Your task to perform on an android device: Open Android settings Image 0: 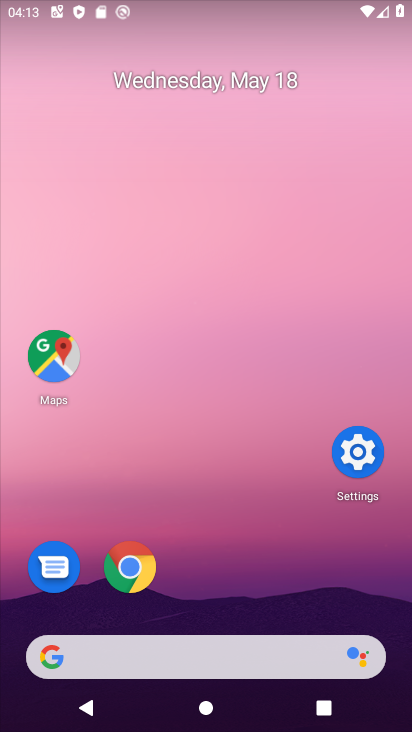
Step 0: drag from (283, 597) to (285, 499)
Your task to perform on an android device: Open Android settings Image 1: 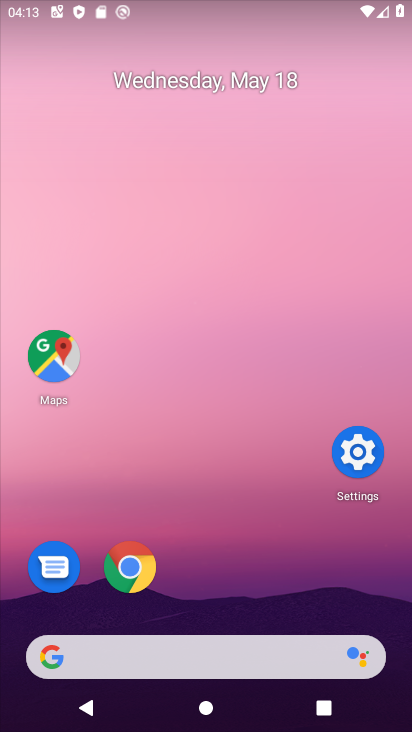
Step 1: click (342, 458)
Your task to perform on an android device: Open Android settings Image 2: 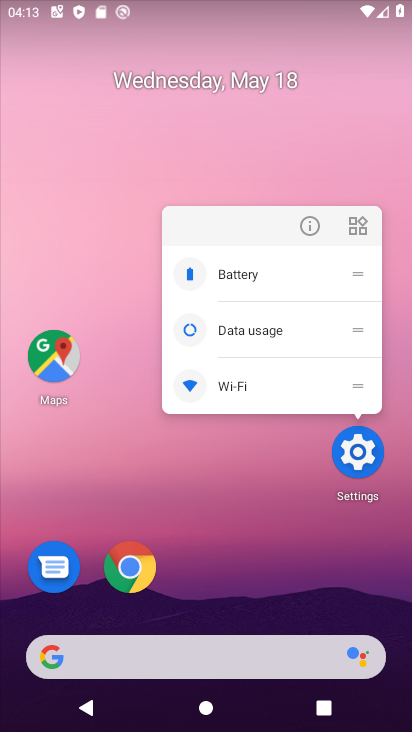
Step 2: click (367, 452)
Your task to perform on an android device: Open Android settings Image 3: 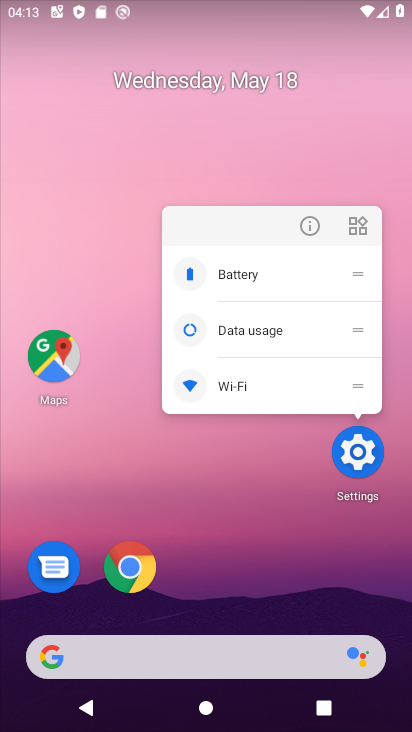
Step 3: click (360, 449)
Your task to perform on an android device: Open Android settings Image 4: 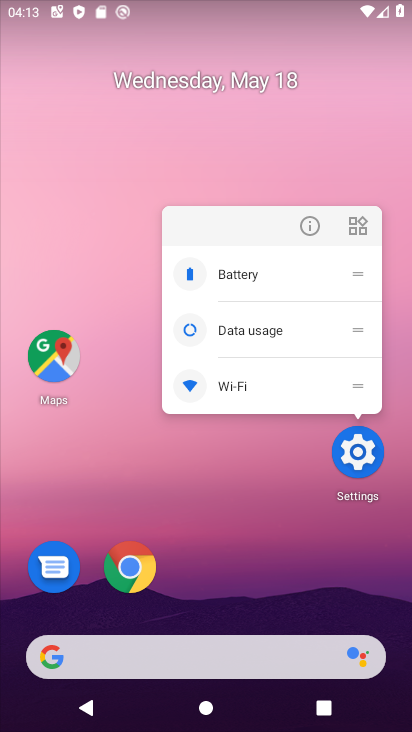
Step 4: click (256, 568)
Your task to perform on an android device: Open Android settings Image 5: 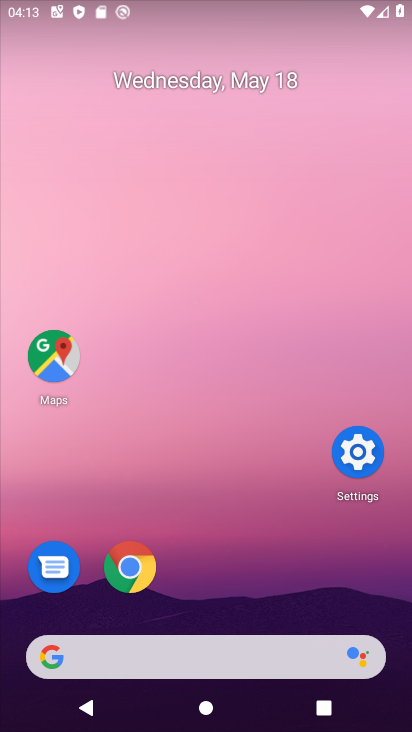
Step 5: drag from (256, 572) to (267, 58)
Your task to perform on an android device: Open Android settings Image 6: 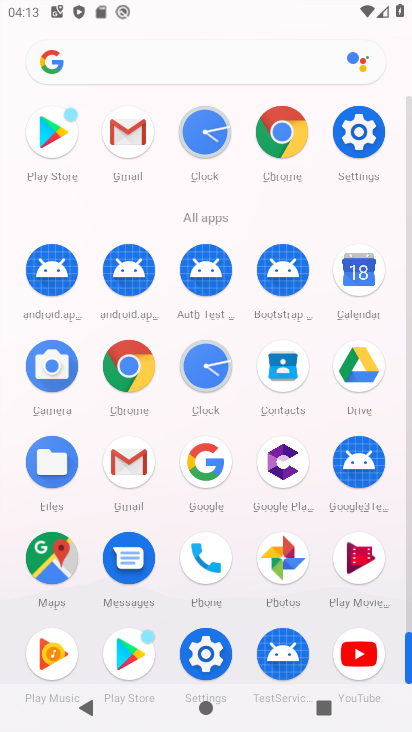
Step 6: click (349, 125)
Your task to perform on an android device: Open Android settings Image 7: 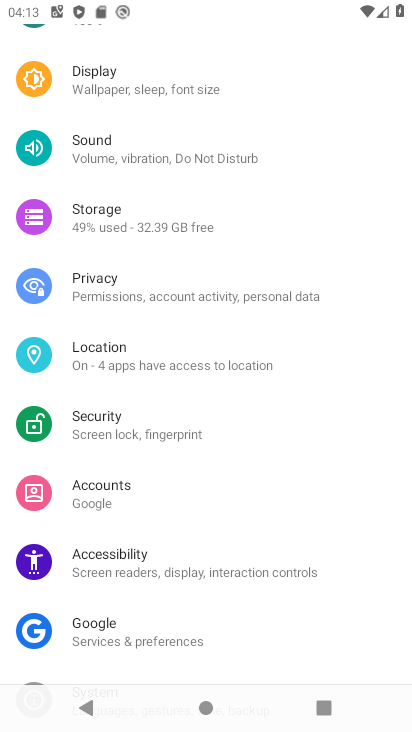
Step 7: drag from (272, 582) to (274, 56)
Your task to perform on an android device: Open Android settings Image 8: 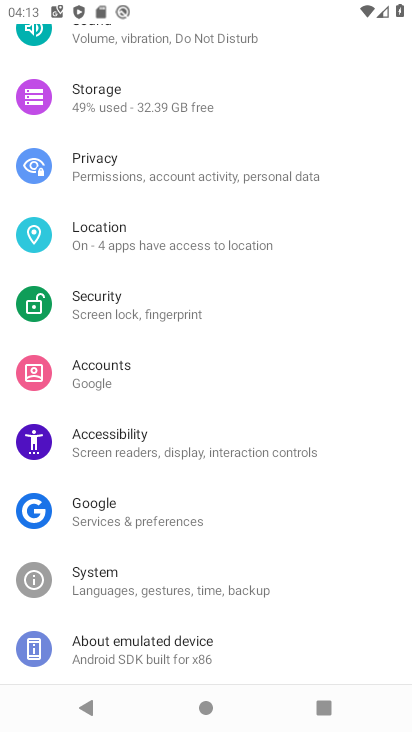
Step 8: click (105, 657)
Your task to perform on an android device: Open Android settings Image 9: 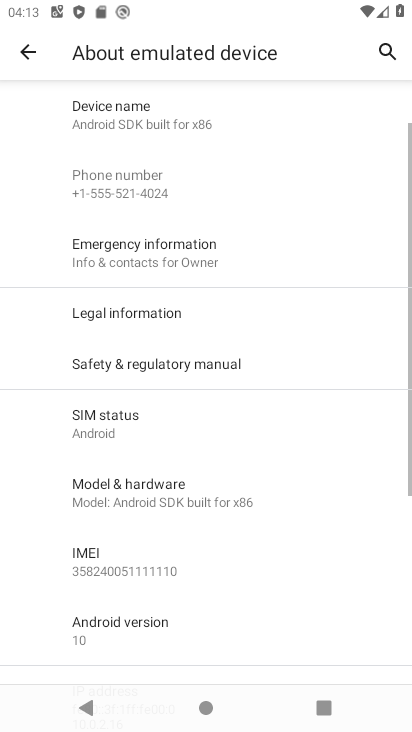
Step 9: drag from (296, 584) to (304, 295)
Your task to perform on an android device: Open Android settings Image 10: 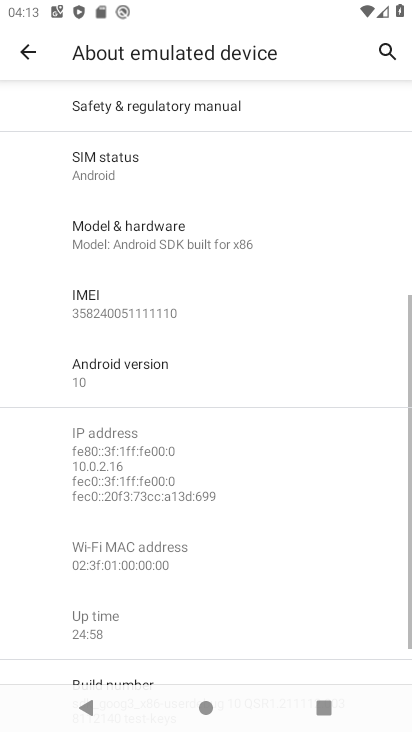
Step 10: click (112, 368)
Your task to perform on an android device: Open Android settings Image 11: 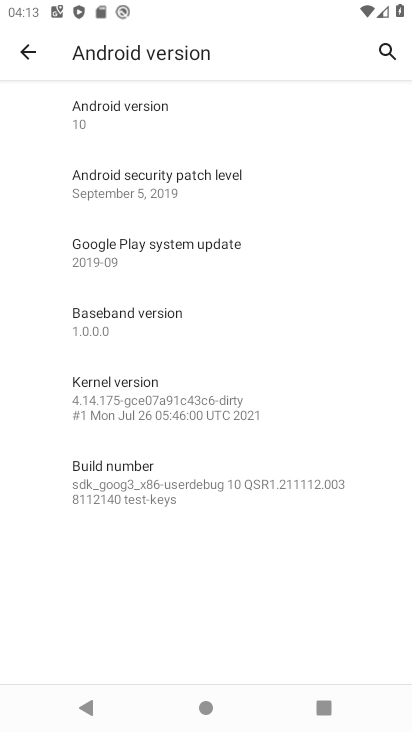
Step 11: click (95, 112)
Your task to perform on an android device: Open Android settings Image 12: 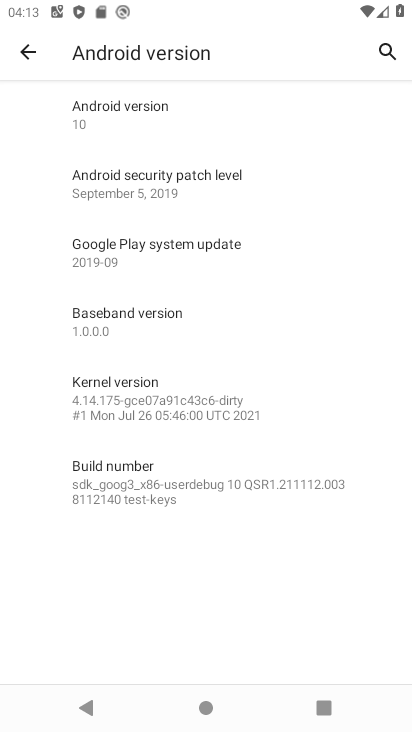
Step 12: task complete